Your task to perform on an android device: clear all cookies in the chrome app Image 0: 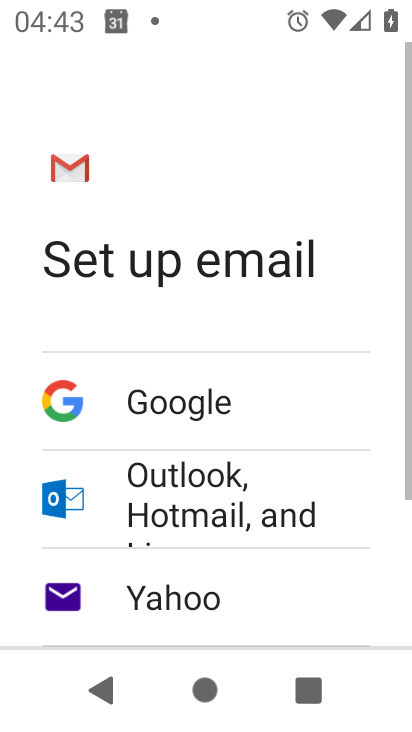
Step 0: press home button
Your task to perform on an android device: clear all cookies in the chrome app Image 1: 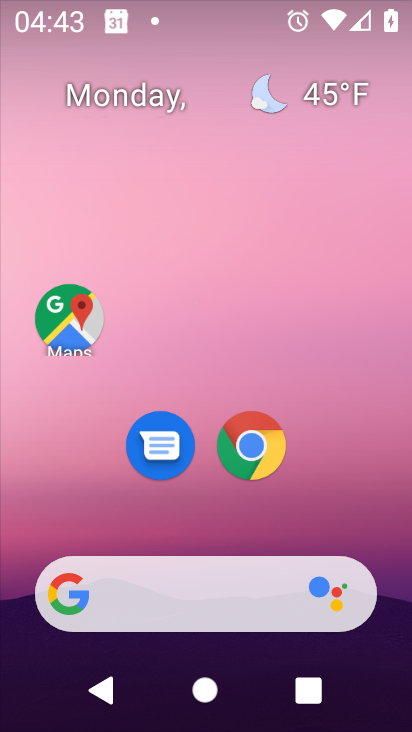
Step 1: click (241, 461)
Your task to perform on an android device: clear all cookies in the chrome app Image 2: 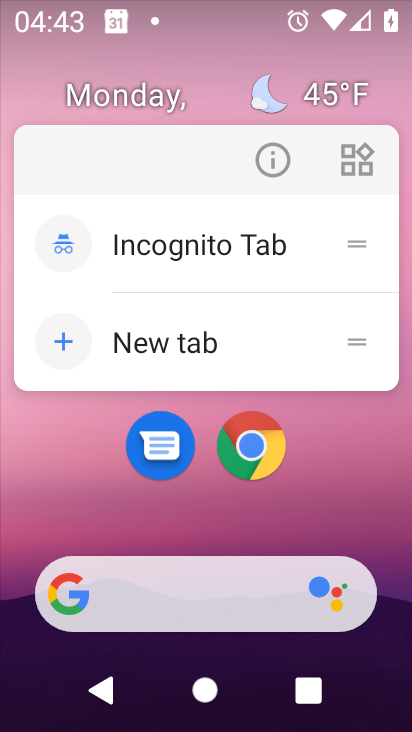
Step 2: click (257, 468)
Your task to perform on an android device: clear all cookies in the chrome app Image 3: 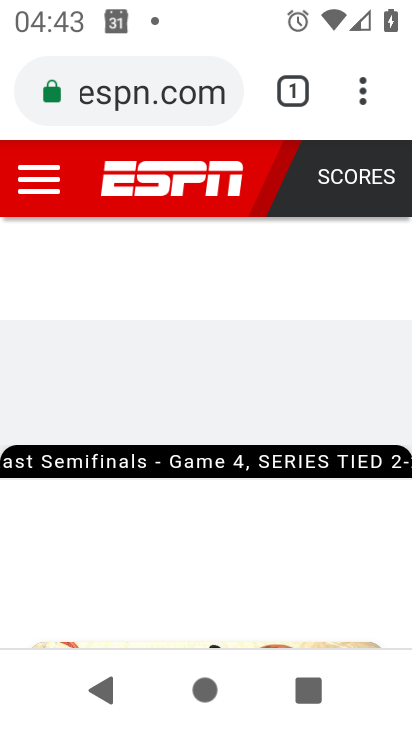
Step 3: click (372, 72)
Your task to perform on an android device: clear all cookies in the chrome app Image 4: 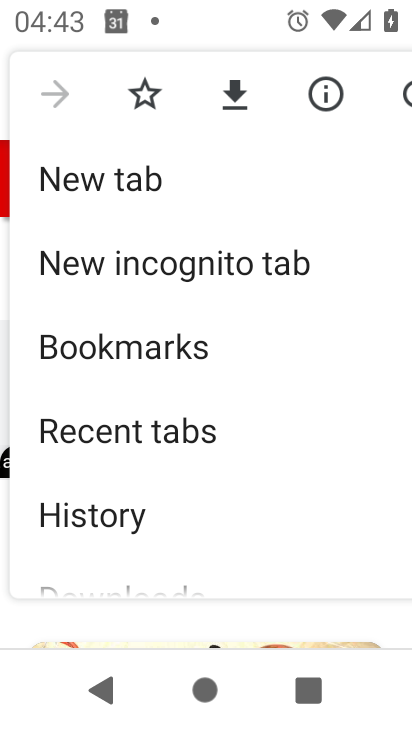
Step 4: click (145, 502)
Your task to perform on an android device: clear all cookies in the chrome app Image 5: 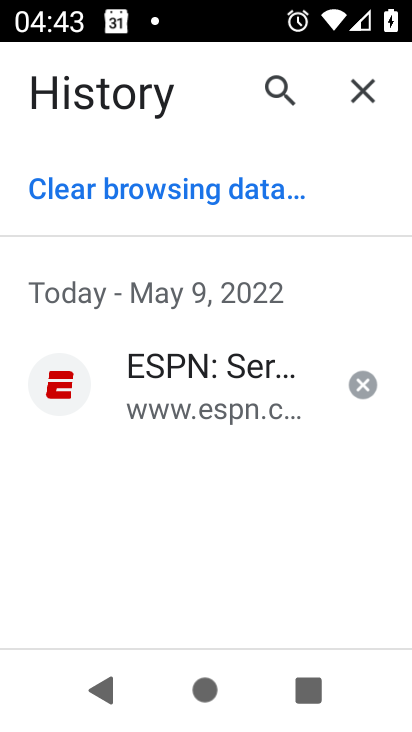
Step 5: click (133, 177)
Your task to perform on an android device: clear all cookies in the chrome app Image 6: 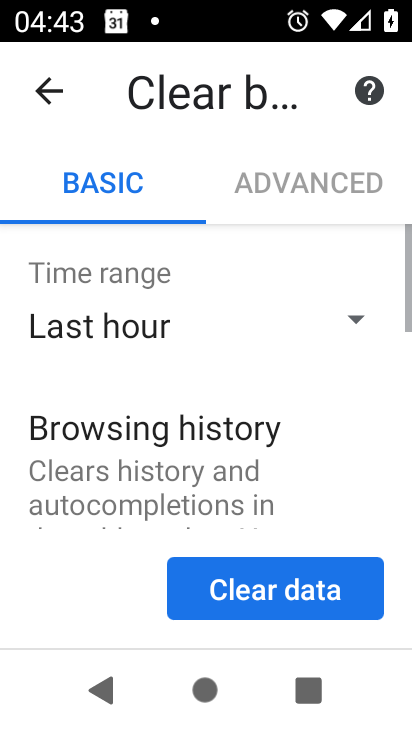
Step 6: drag from (225, 478) to (265, 189)
Your task to perform on an android device: clear all cookies in the chrome app Image 7: 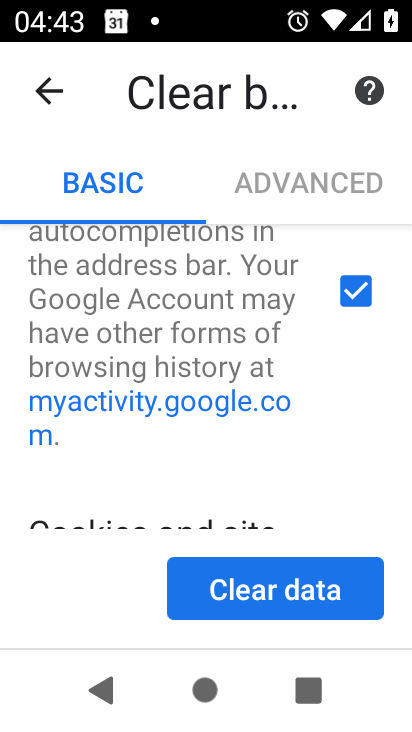
Step 7: click (319, 288)
Your task to perform on an android device: clear all cookies in the chrome app Image 8: 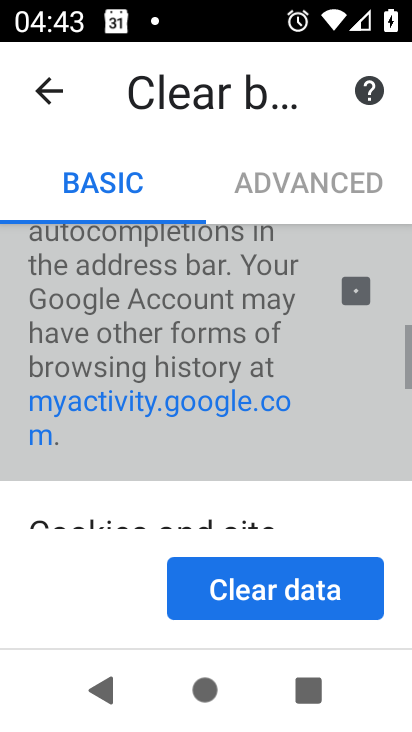
Step 8: drag from (265, 442) to (312, 74)
Your task to perform on an android device: clear all cookies in the chrome app Image 9: 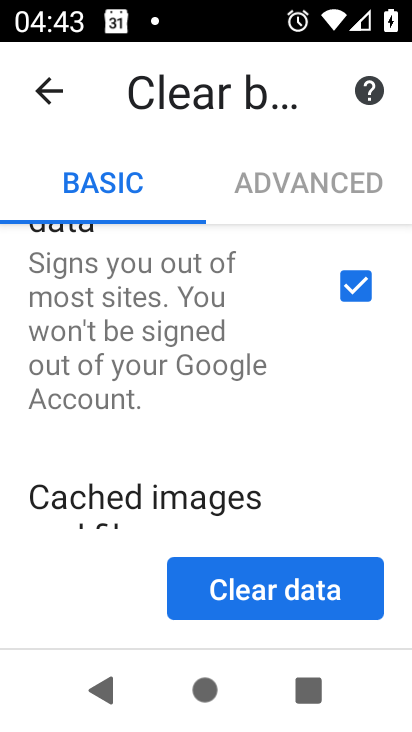
Step 9: drag from (295, 451) to (363, 23)
Your task to perform on an android device: clear all cookies in the chrome app Image 10: 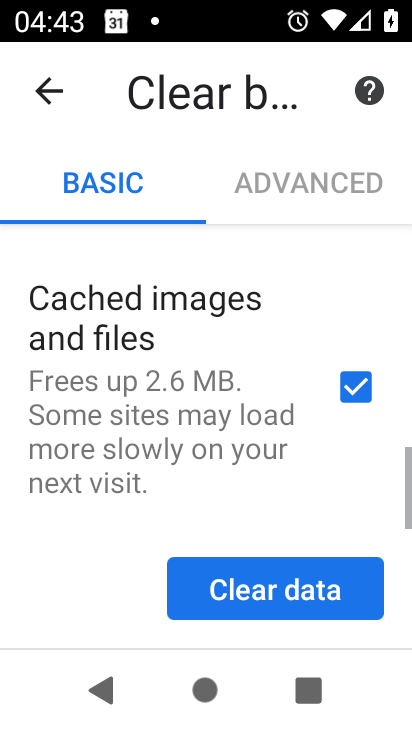
Step 10: click (352, 384)
Your task to perform on an android device: clear all cookies in the chrome app Image 11: 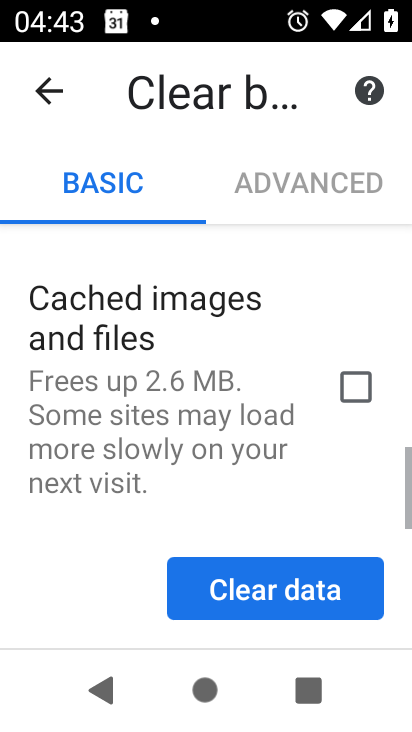
Step 11: click (282, 600)
Your task to perform on an android device: clear all cookies in the chrome app Image 12: 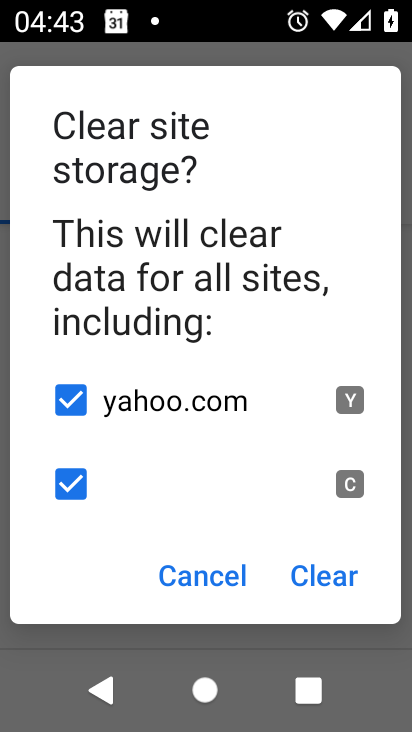
Step 12: click (322, 577)
Your task to perform on an android device: clear all cookies in the chrome app Image 13: 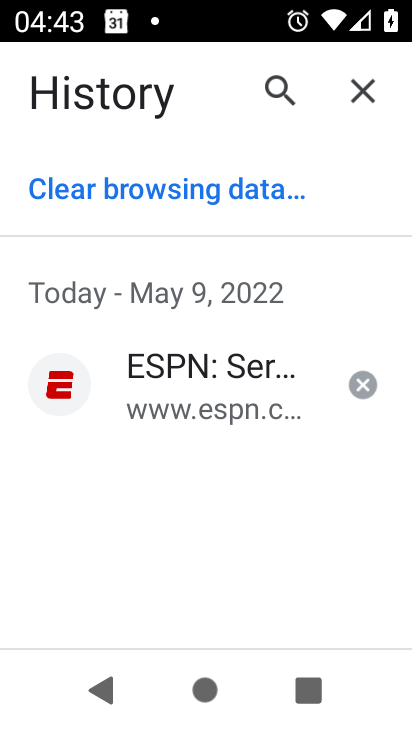
Step 13: task complete